Your task to perform on an android device: Toggle the flashlight Image 0: 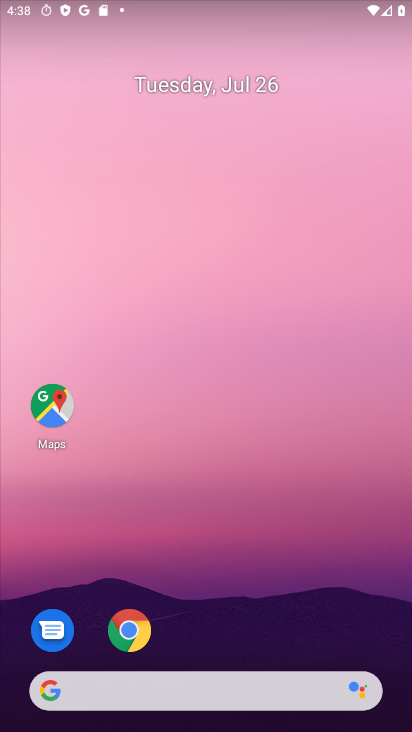
Step 0: drag from (304, 628) to (311, 68)
Your task to perform on an android device: Toggle the flashlight Image 1: 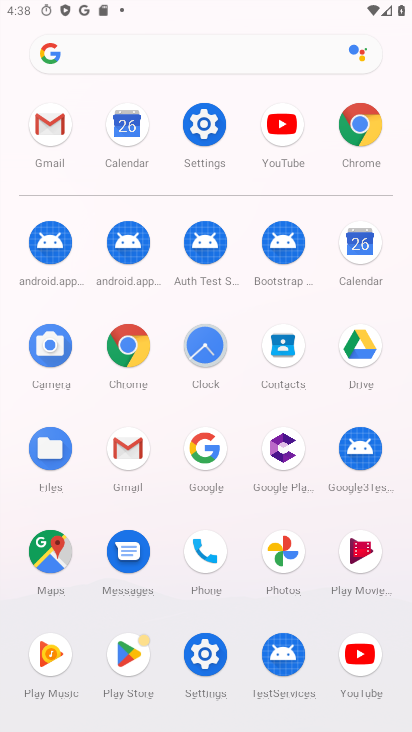
Step 1: click (208, 122)
Your task to perform on an android device: Toggle the flashlight Image 2: 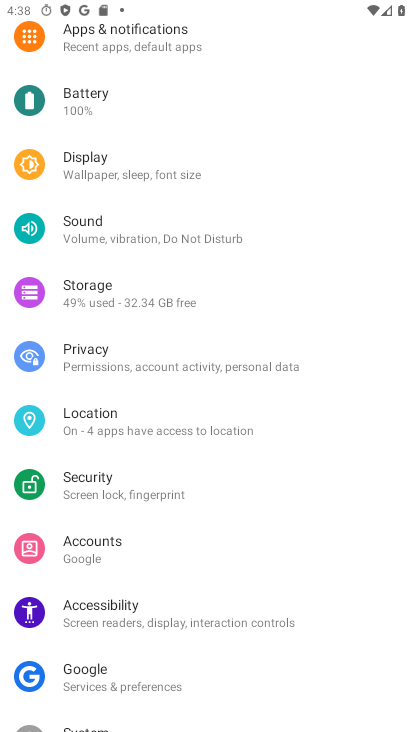
Step 2: click (138, 176)
Your task to perform on an android device: Toggle the flashlight Image 3: 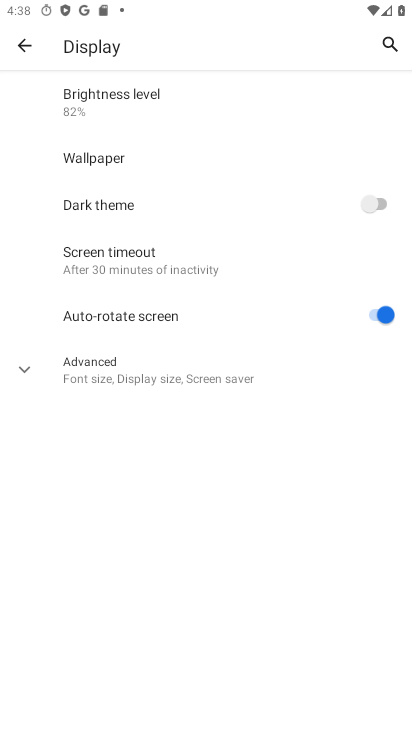
Step 3: task complete